Your task to perform on an android device: refresh tabs in the chrome app Image 0: 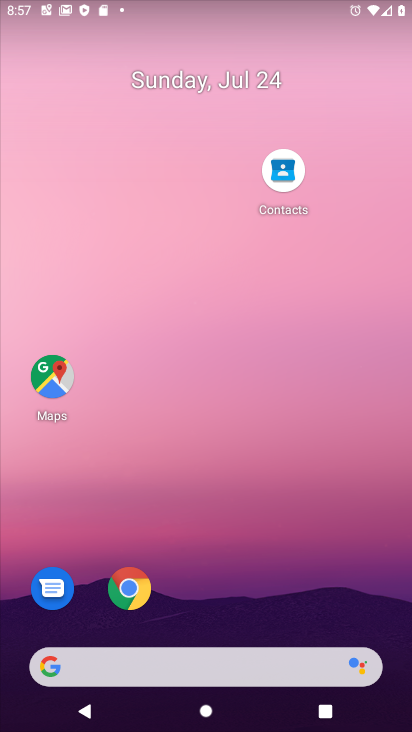
Step 0: press home button
Your task to perform on an android device: refresh tabs in the chrome app Image 1: 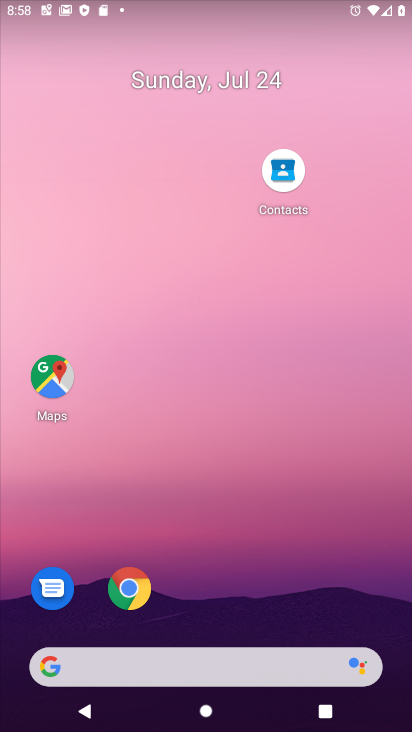
Step 1: click (122, 583)
Your task to perform on an android device: refresh tabs in the chrome app Image 2: 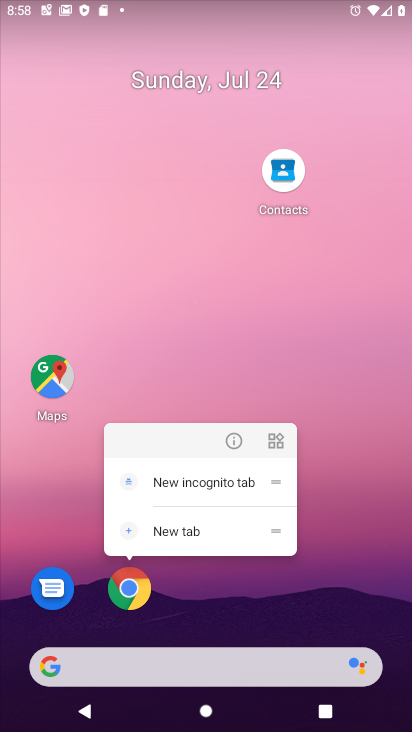
Step 2: click (130, 581)
Your task to perform on an android device: refresh tabs in the chrome app Image 3: 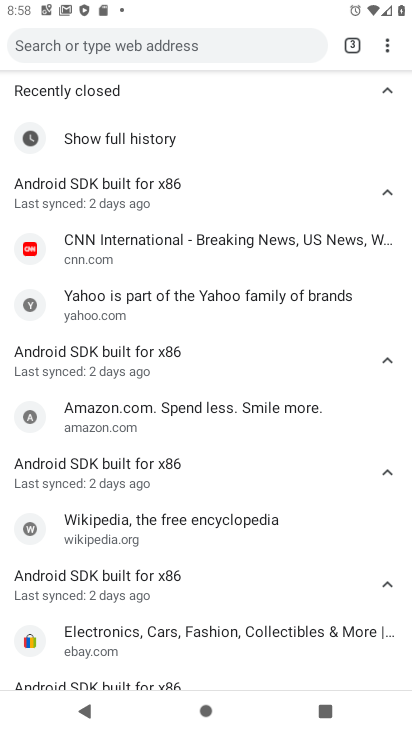
Step 3: click (384, 40)
Your task to perform on an android device: refresh tabs in the chrome app Image 4: 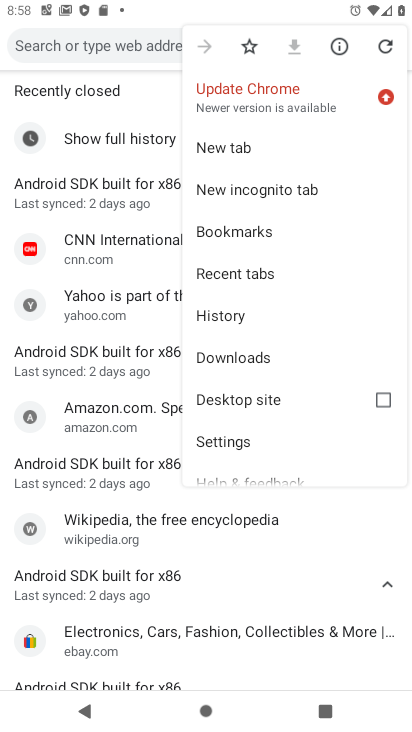
Step 4: click (386, 45)
Your task to perform on an android device: refresh tabs in the chrome app Image 5: 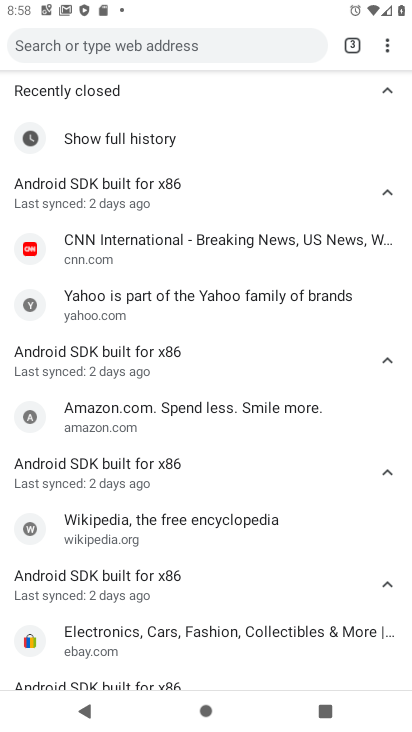
Step 5: task complete